Your task to perform on an android device: Show me recent news Image 0: 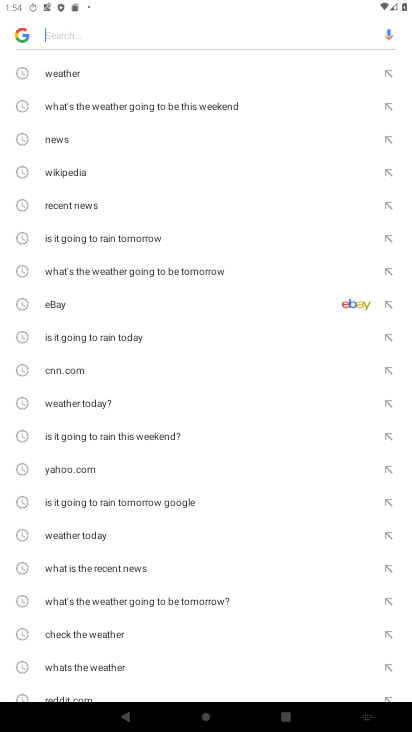
Step 0: click (85, 33)
Your task to perform on an android device: Show me recent news Image 1: 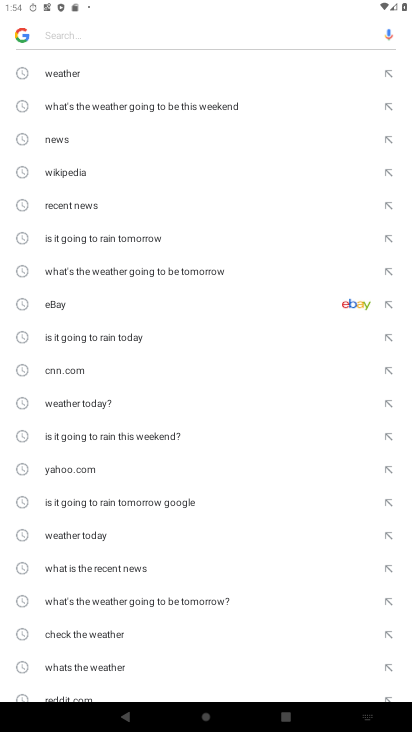
Step 1: type "recent news"
Your task to perform on an android device: Show me recent news Image 2: 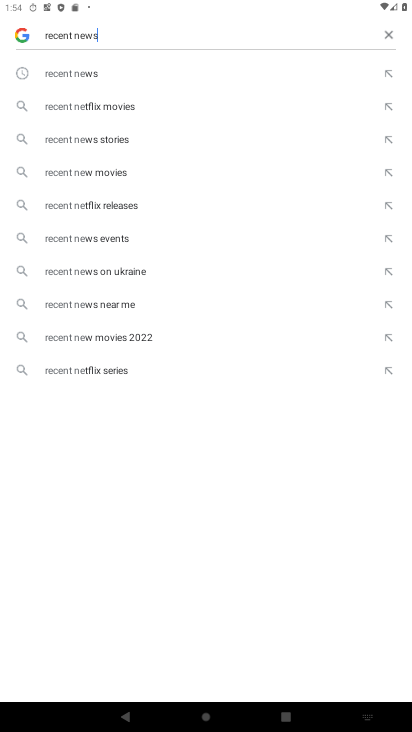
Step 2: type ""
Your task to perform on an android device: Show me recent news Image 3: 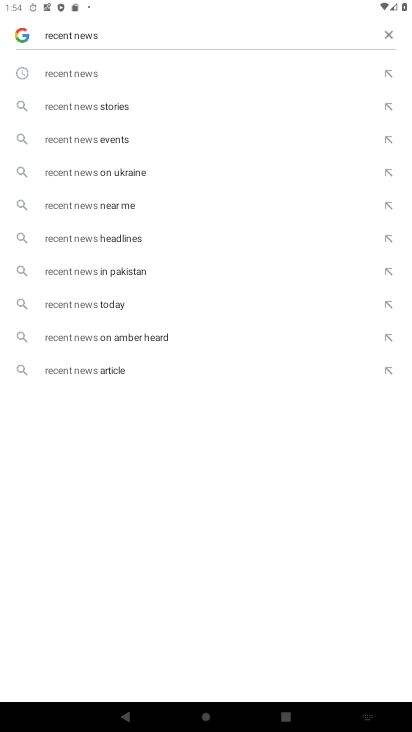
Step 3: click (92, 74)
Your task to perform on an android device: Show me recent news Image 4: 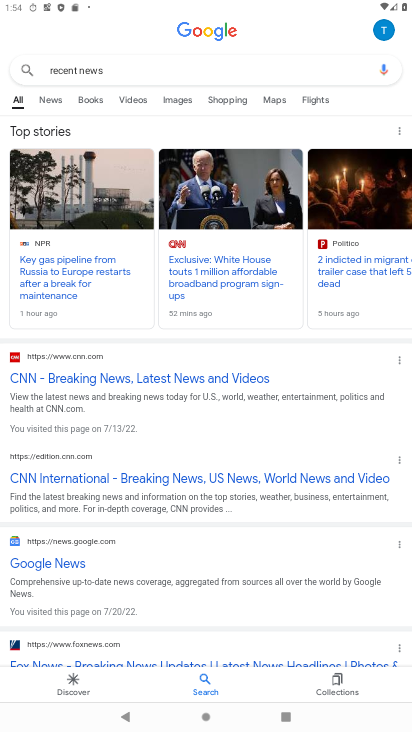
Step 4: task complete